Your task to perform on an android device: Open CNN.com Image 0: 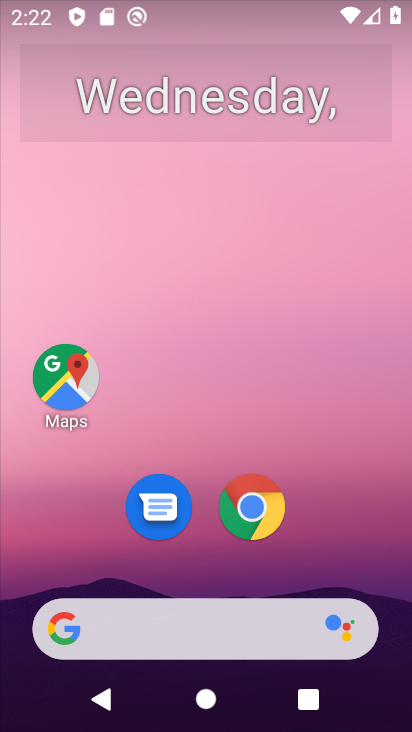
Step 0: click (232, 542)
Your task to perform on an android device: Open CNN.com Image 1: 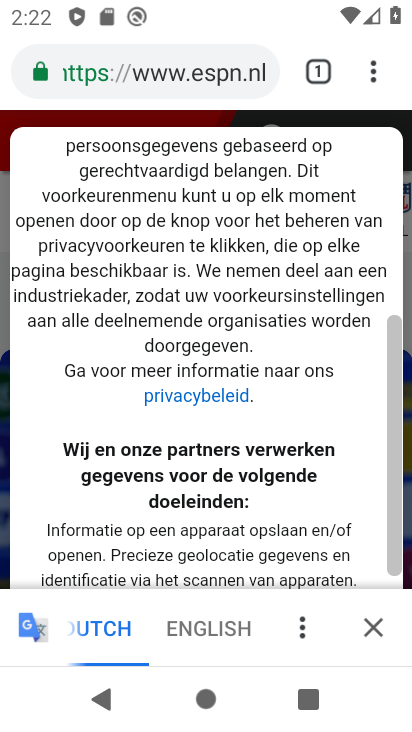
Step 1: click (166, 72)
Your task to perform on an android device: Open CNN.com Image 2: 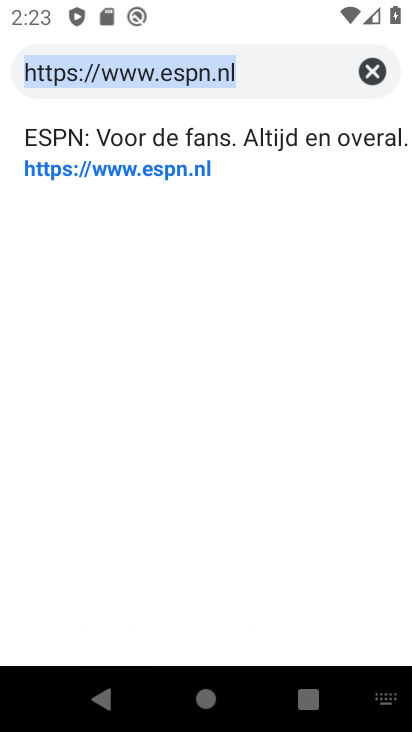
Step 2: type "cnn"
Your task to perform on an android device: Open CNN.com Image 3: 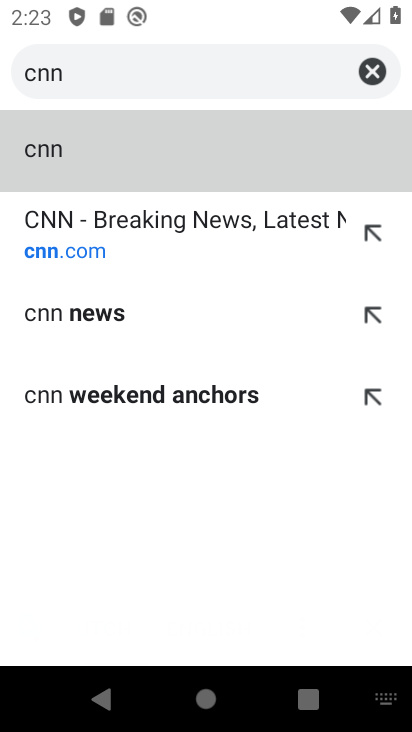
Step 3: click (154, 238)
Your task to perform on an android device: Open CNN.com Image 4: 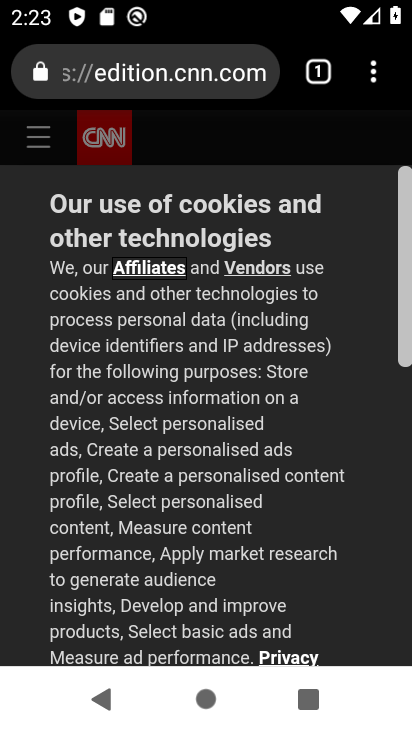
Step 4: task complete